Your task to perform on an android device: What's the news in the Bahamas? Image 0: 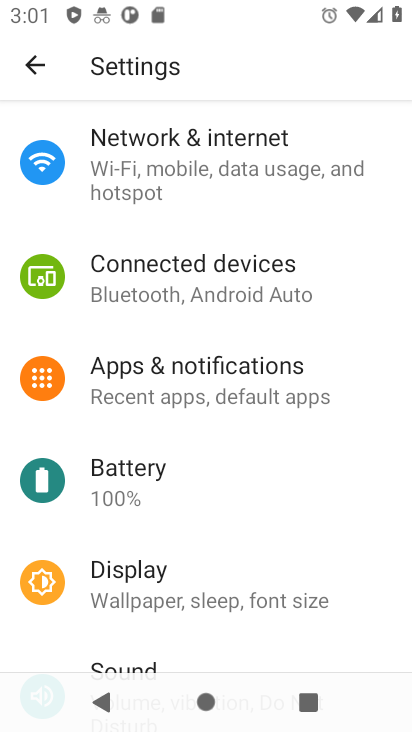
Step 0: press home button
Your task to perform on an android device: What's the news in the Bahamas? Image 1: 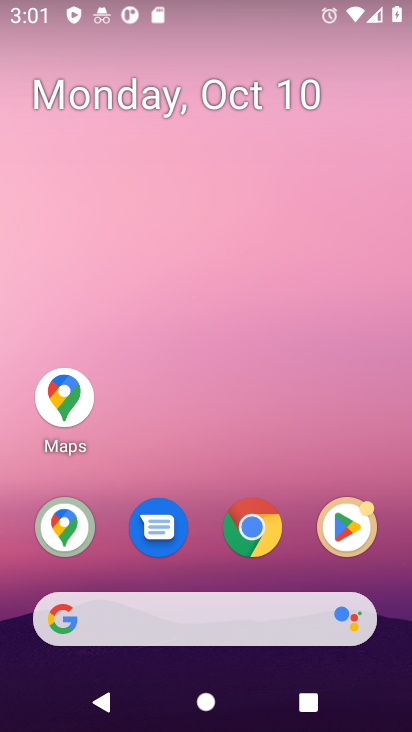
Step 1: click (248, 526)
Your task to perform on an android device: What's the news in the Bahamas? Image 2: 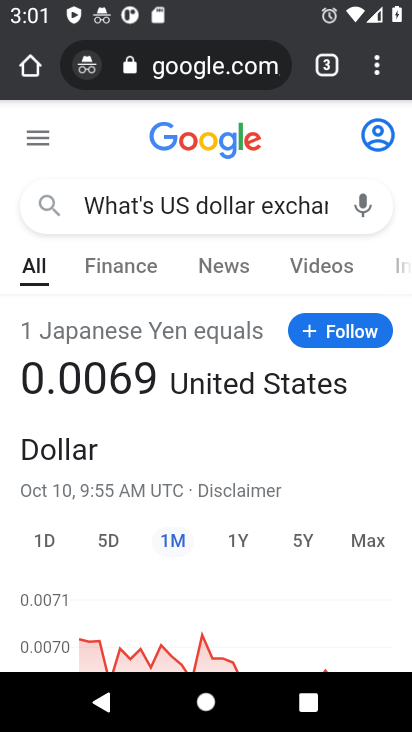
Step 2: click (205, 63)
Your task to perform on an android device: What's the news in the Bahamas? Image 3: 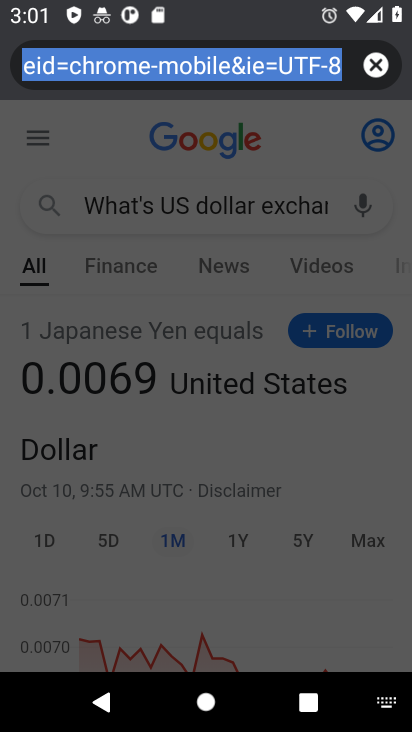
Step 3: click (370, 65)
Your task to perform on an android device: What's the news in the Bahamas? Image 4: 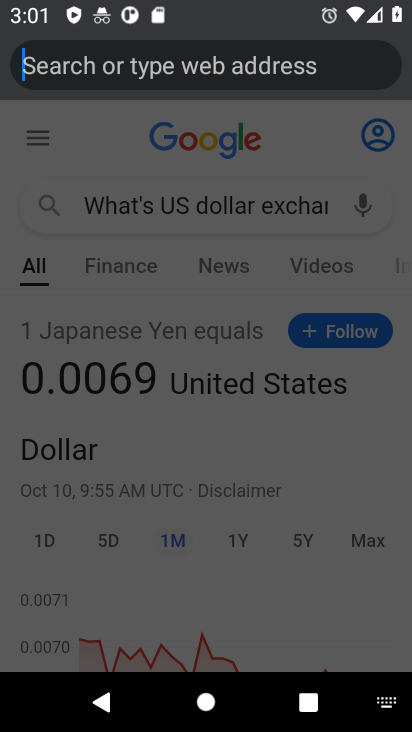
Step 4: type "What's the news in the Bahamas"
Your task to perform on an android device: What's the news in the Bahamas? Image 5: 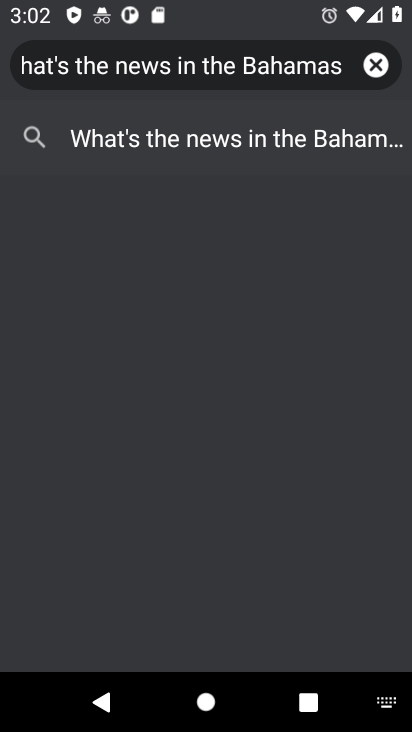
Step 5: click (317, 139)
Your task to perform on an android device: What's the news in the Bahamas? Image 6: 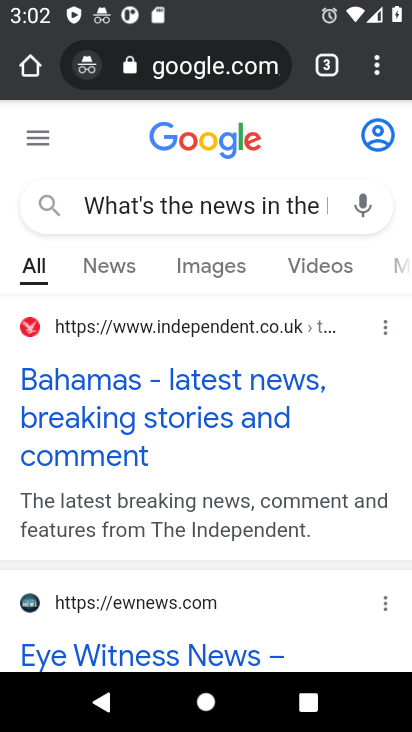
Step 6: click (193, 403)
Your task to perform on an android device: What's the news in the Bahamas? Image 7: 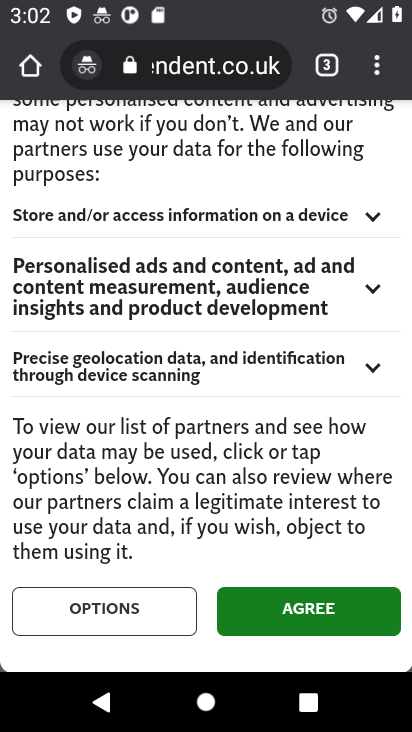
Step 7: click (316, 607)
Your task to perform on an android device: What's the news in the Bahamas? Image 8: 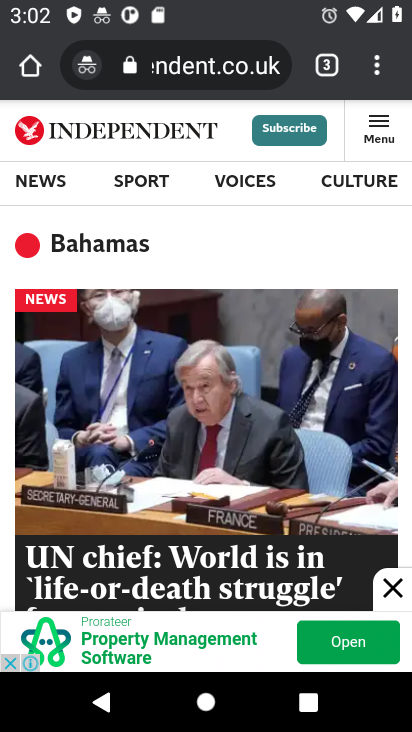
Step 8: task complete